Your task to perform on an android device: Go to Android settings Image 0: 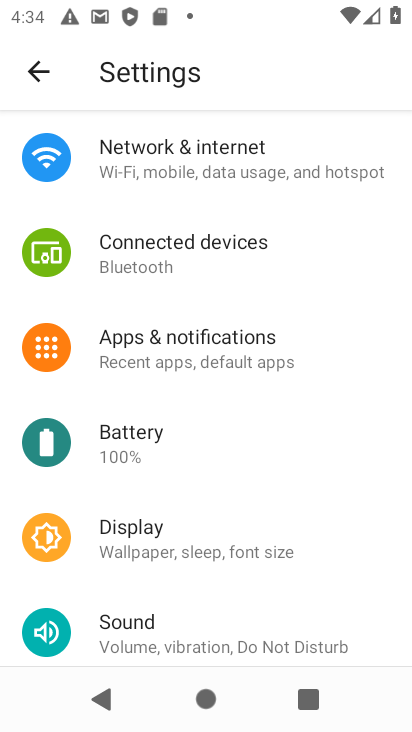
Step 0: drag from (165, 526) to (163, 212)
Your task to perform on an android device: Go to Android settings Image 1: 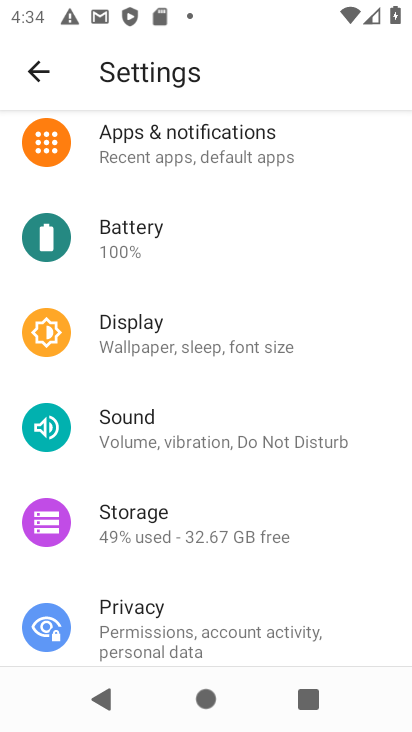
Step 1: task complete